Your task to perform on an android device: Go to Google Image 0: 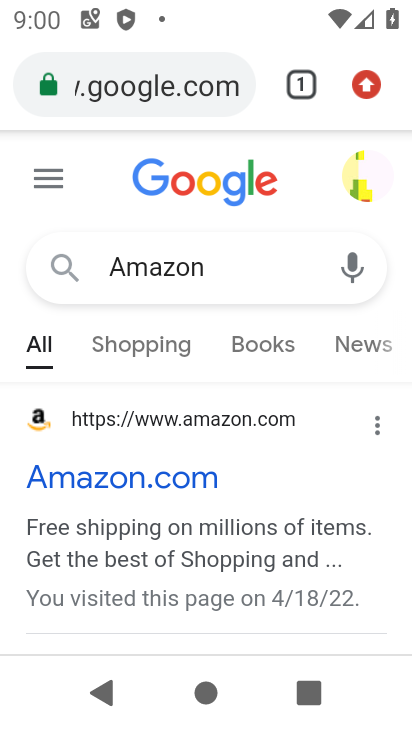
Step 0: press home button
Your task to perform on an android device: Go to Google Image 1: 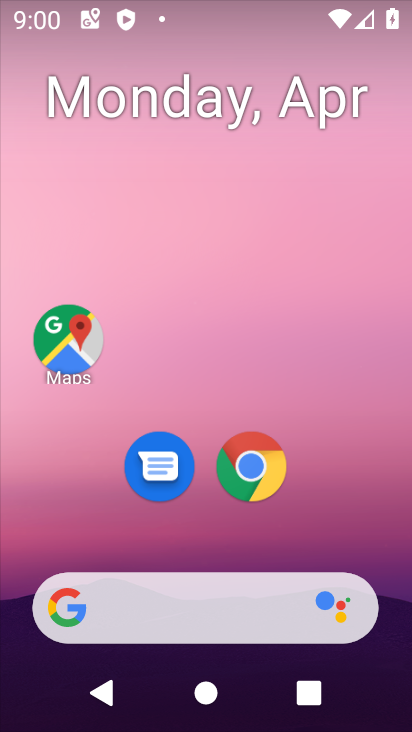
Step 1: drag from (179, 540) to (251, 164)
Your task to perform on an android device: Go to Google Image 2: 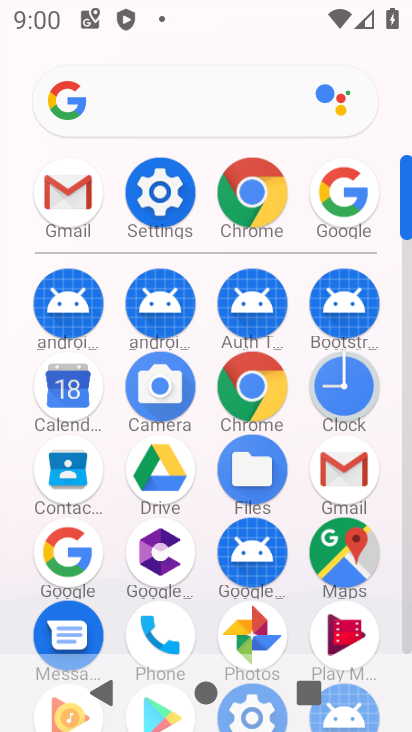
Step 2: click (343, 225)
Your task to perform on an android device: Go to Google Image 3: 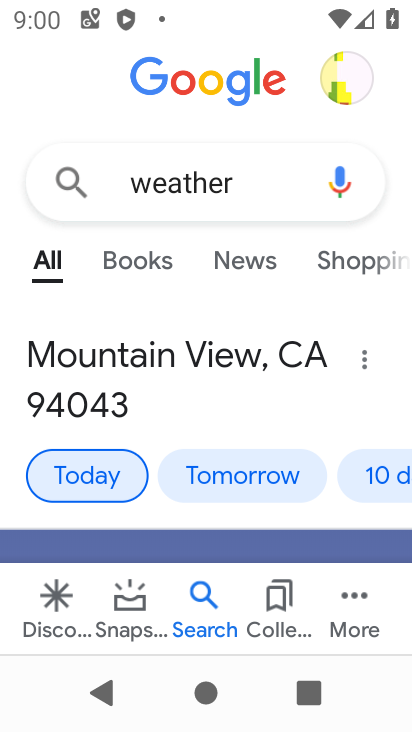
Step 3: task complete